Your task to perform on an android device: check battery use Image 0: 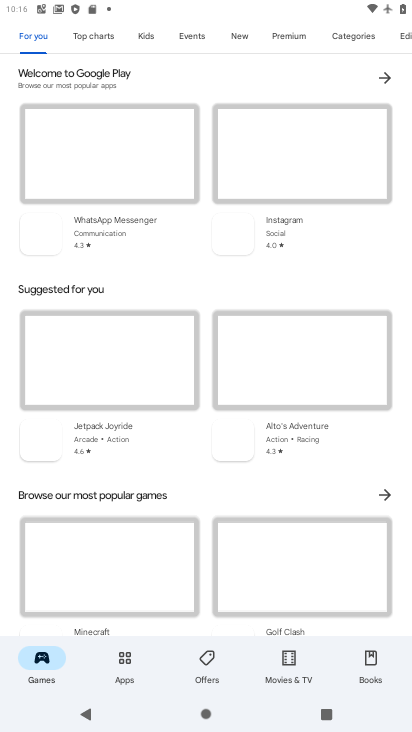
Step 0: press home button
Your task to perform on an android device: check battery use Image 1: 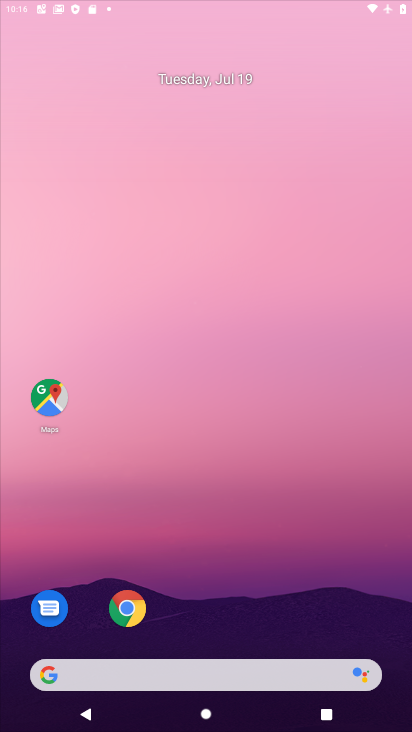
Step 1: press home button
Your task to perform on an android device: check battery use Image 2: 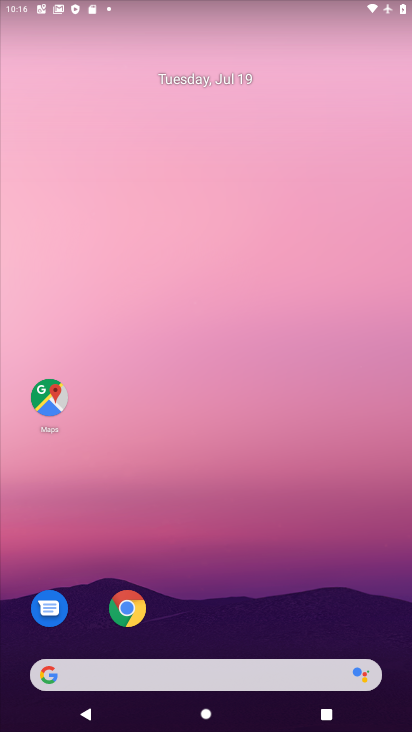
Step 2: drag from (196, 586) to (248, 196)
Your task to perform on an android device: check battery use Image 3: 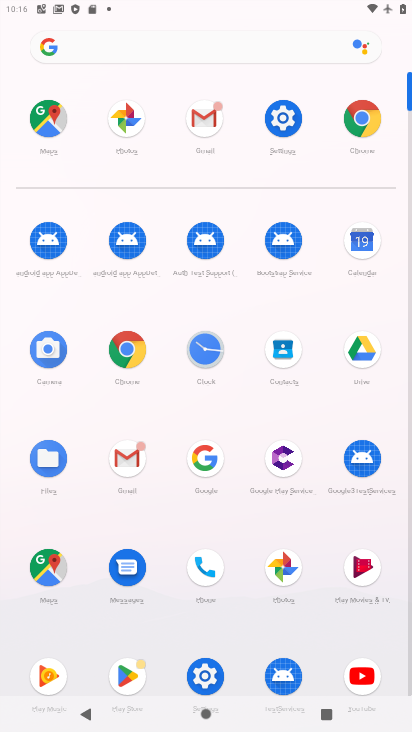
Step 3: click (283, 121)
Your task to perform on an android device: check battery use Image 4: 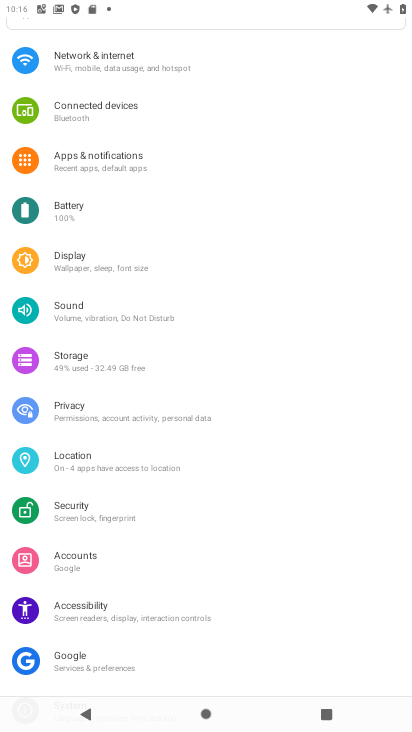
Step 4: drag from (153, 507) to (152, 571)
Your task to perform on an android device: check battery use Image 5: 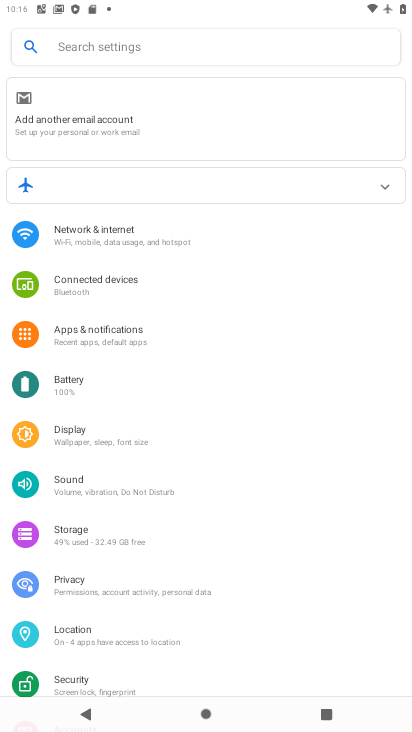
Step 5: click (78, 386)
Your task to perform on an android device: check battery use Image 6: 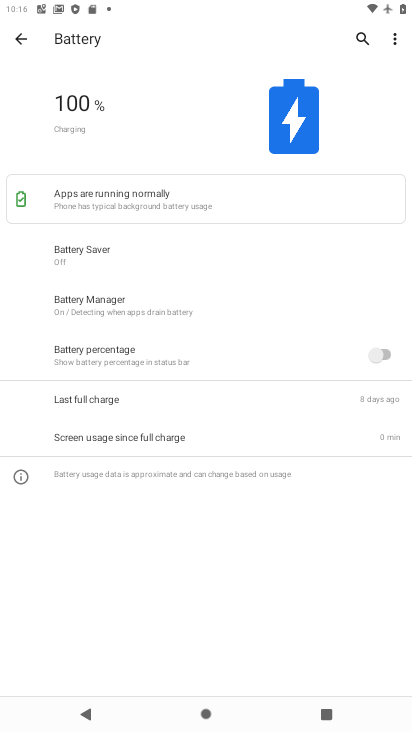
Step 6: click (396, 35)
Your task to perform on an android device: check battery use Image 7: 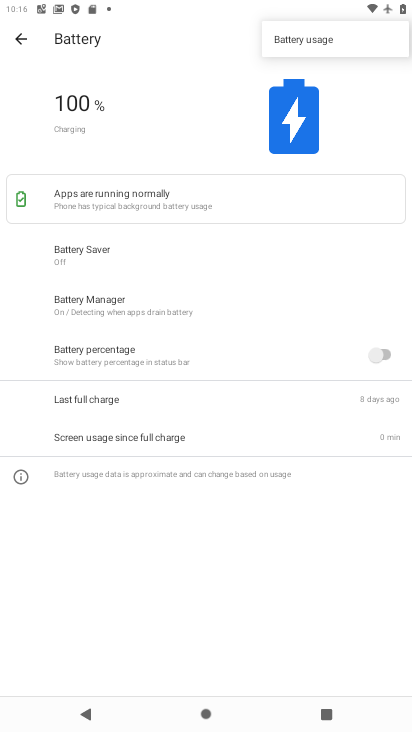
Step 7: click (316, 38)
Your task to perform on an android device: check battery use Image 8: 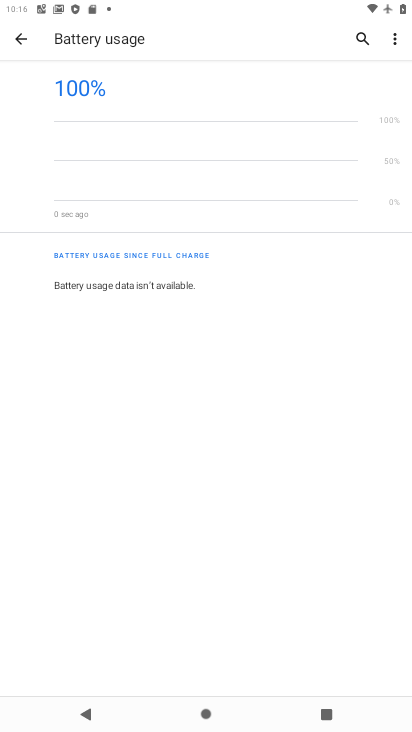
Step 8: task complete